Your task to perform on an android device: Go to sound settings Image 0: 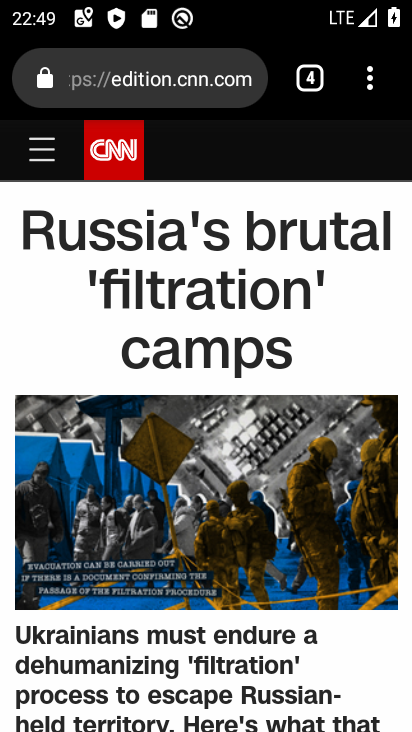
Step 0: press home button
Your task to perform on an android device: Go to sound settings Image 1: 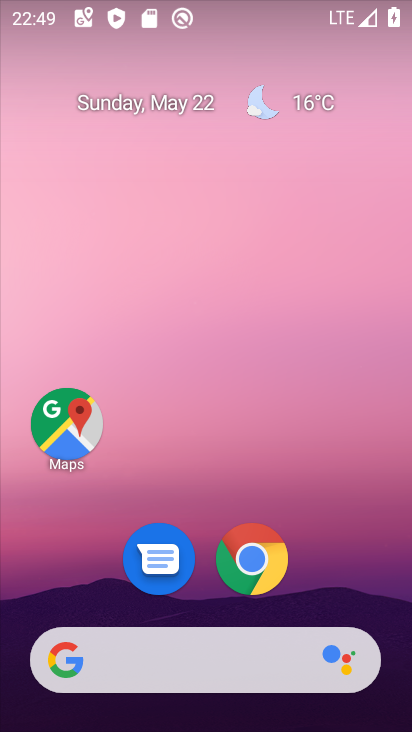
Step 1: drag from (227, 687) to (243, 225)
Your task to perform on an android device: Go to sound settings Image 2: 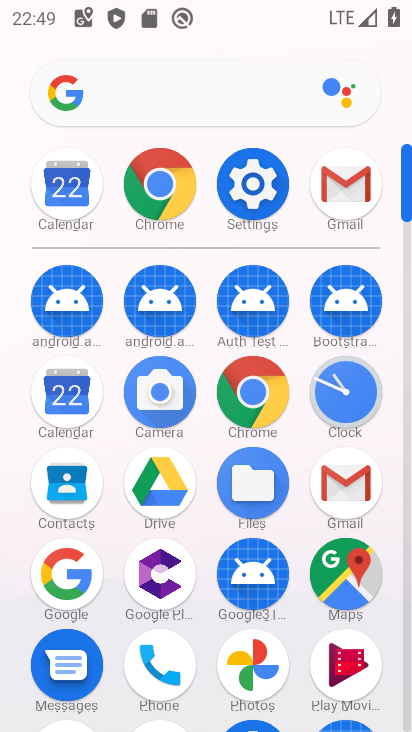
Step 2: click (252, 211)
Your task to perform on an android device: Go to sound settings Image 3: 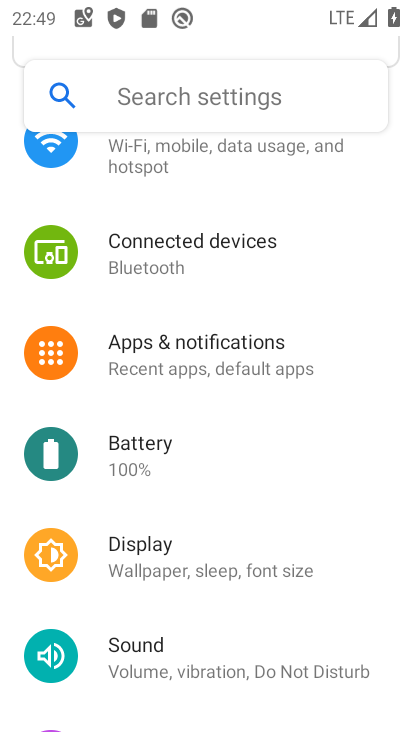
Step 3: click (180, 97)
Your task to perform on an android device: Go to sound settings Image 4: 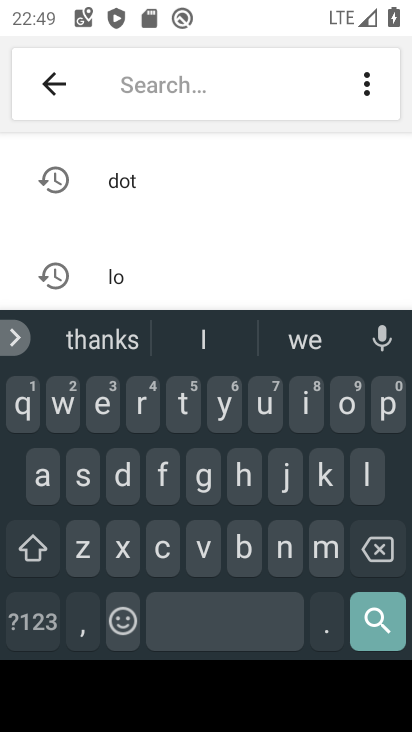
Step 4: click (90, 472)
Your task to perform on an android device: Go to sound settings Image 5: 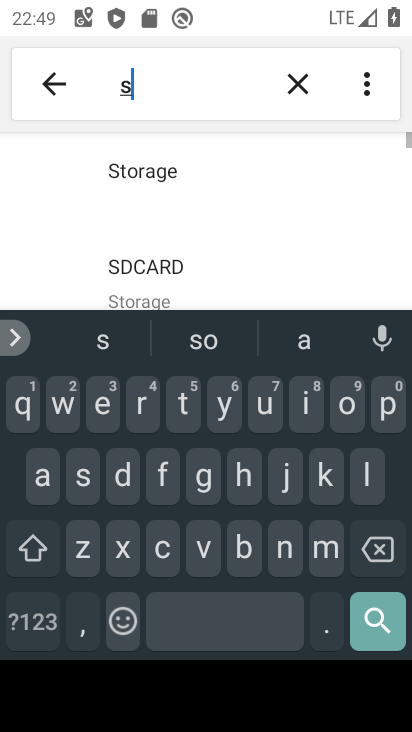
Step 5: click (340, 406)
Your task to perform on an android device: Go to sound settings Image 6: 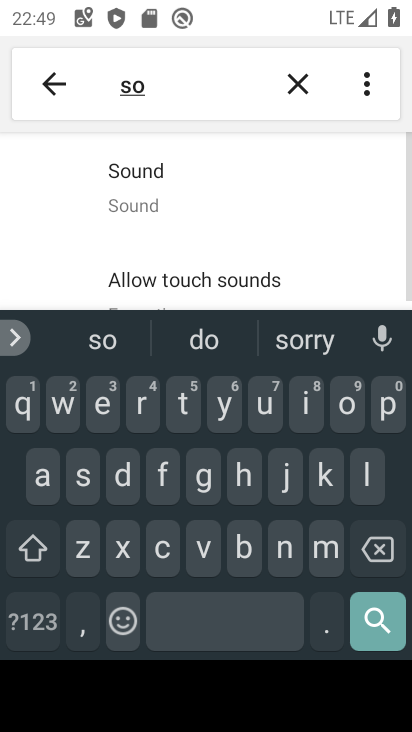
Step 6: click (175, 184)
Your task to perform on an android device: Go to sound settings Image 7: 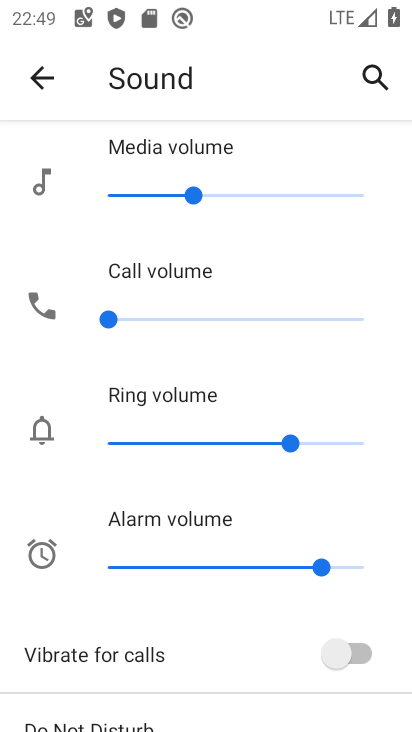
Step 7: task complete